Your task to perform on an android device: open chrome privacy settings Image 0: 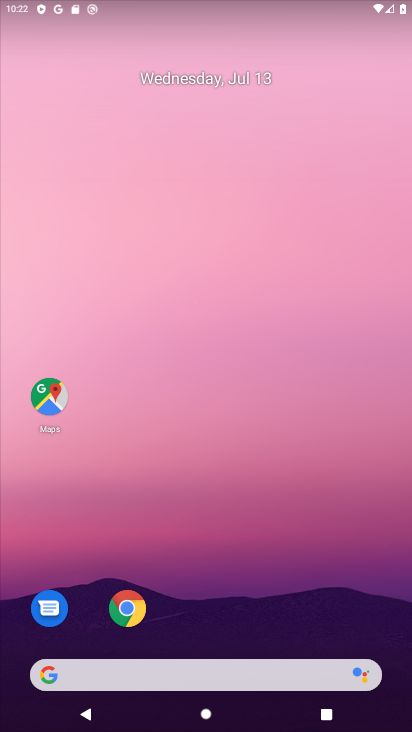
Step 0: click (131, 603)
Your task to perform on an android device: open chrome privacy settings Image 1: 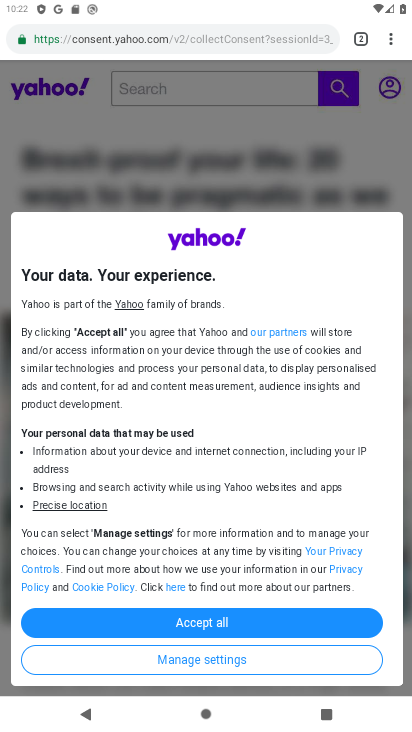
Step 1: click (384, 37)
Your task to perform on an android device: open chrome privacy settings Image 2: 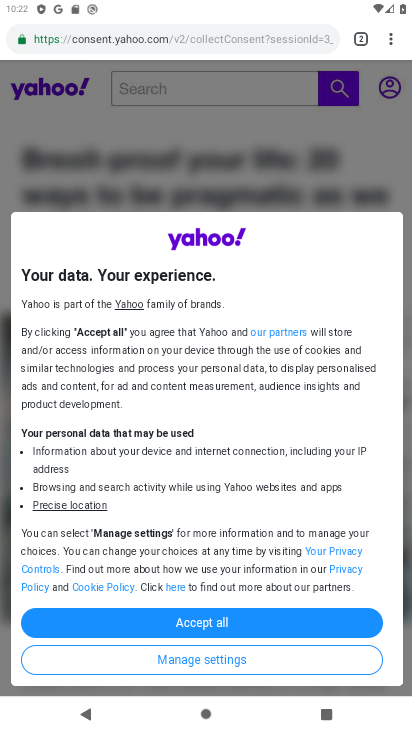
Step 2: click (395, 37)
Your task to perform on an android device: open chrome privacy settings Image 3: 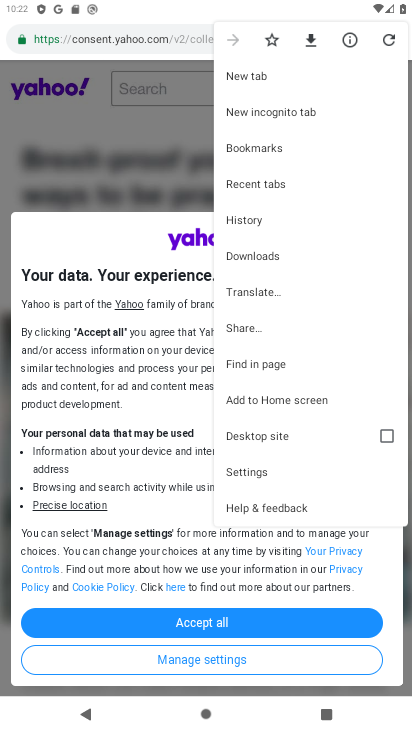
Step 3: click (252, 465)
Your task to perform on an android device: open chrome privacy settings Image 4: 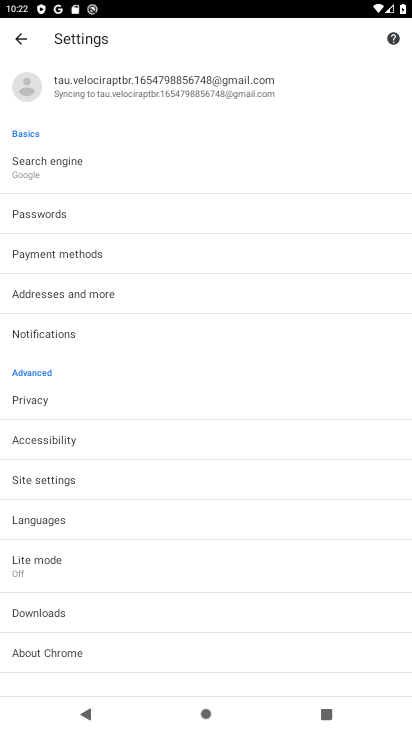
Step 4: click (53, 404)
Your task to perform on an android device: open chrome privacy settings Image 5: 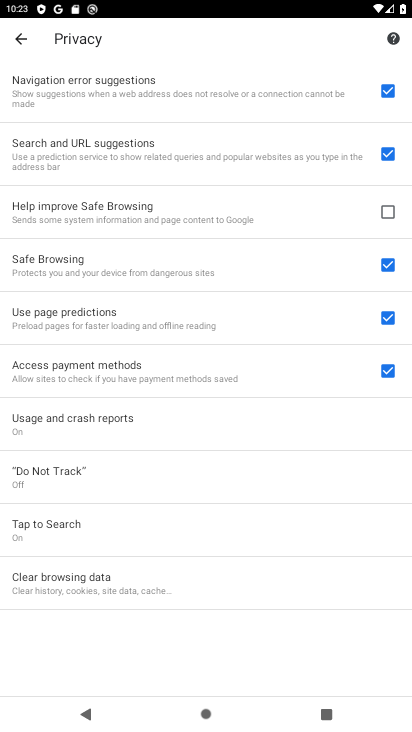
Step 5: task complete